Your task to perform on an android device: Check the weather Image 0: 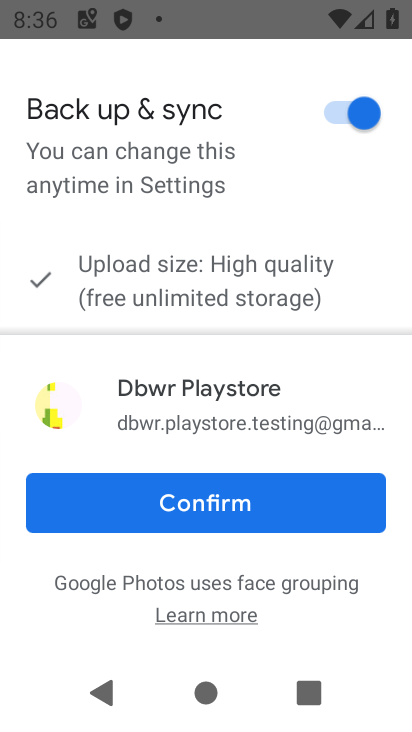
Step 0: press home button
Your task to perform on an android device: Check the weather Image 1: 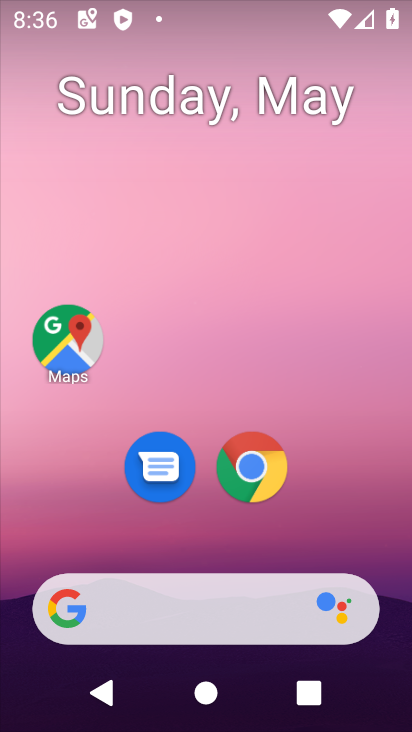
Step 1: click (169, 606)
Your task to perform on an android device: Check the weather Image 2: 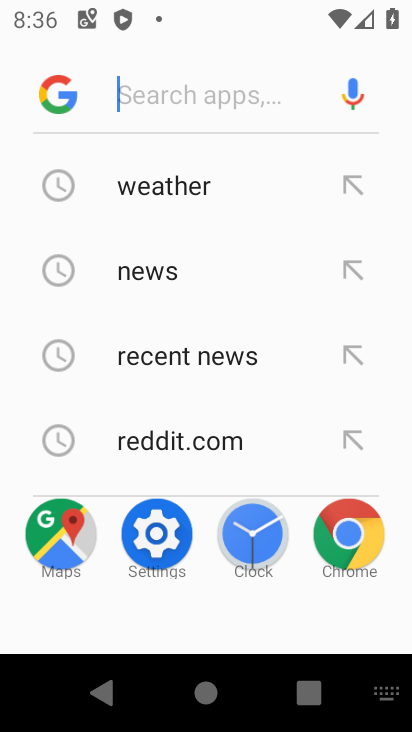
Step 2: click (198, 205)
Your task to perform on an android device: Check the weather Image 3: 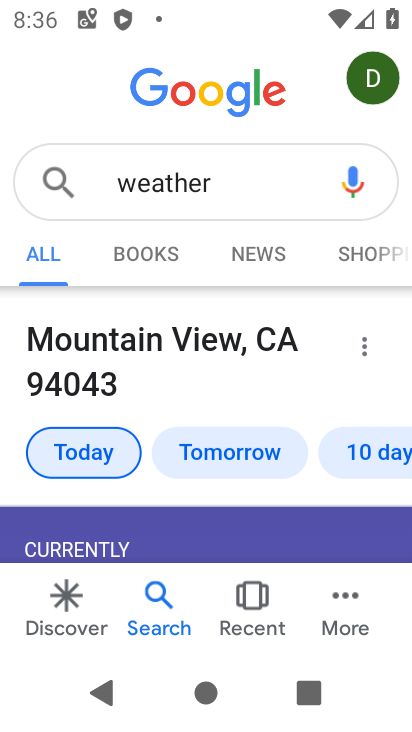
Step 3: task complete